Your task to perform on an android device: star an email in the gmail app Image 0: 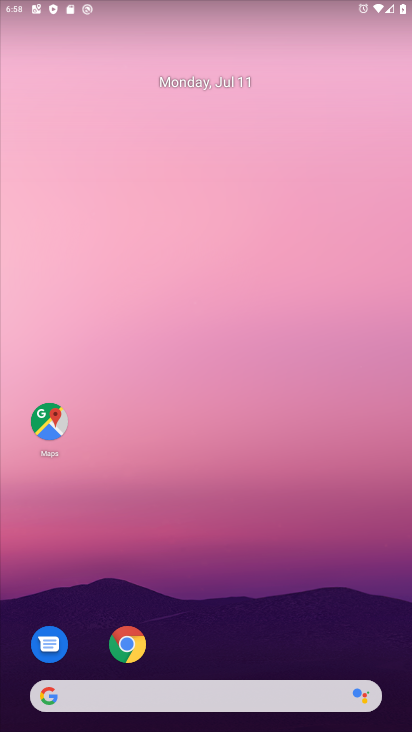
Step 0: drag from (225, 651) to (198, 20)
Your task to perform on an android device: star an email in the gmail app Image 1: 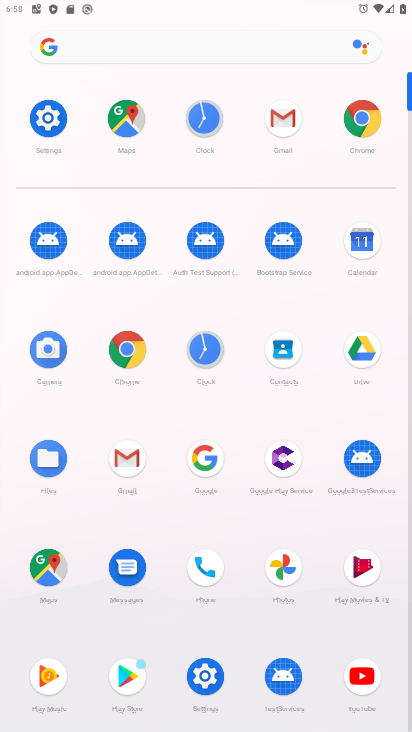
Step 1: click (113, 460)
Your task to perform on an android device: star an email in the gmail app Image 2: 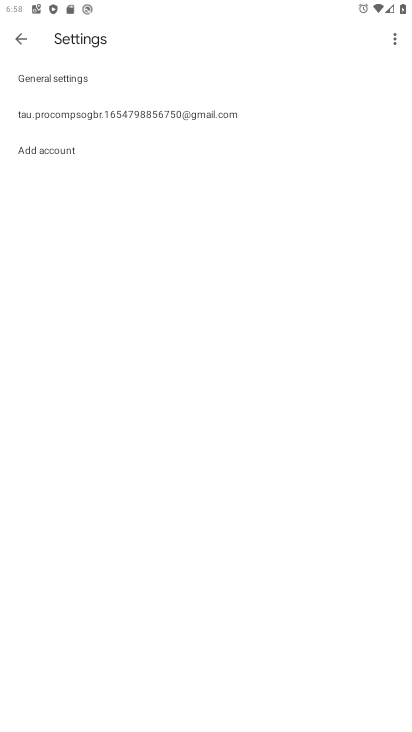
Step 2: press back button
Your task to perform on an android device: star an email in the gmail app Image 3: 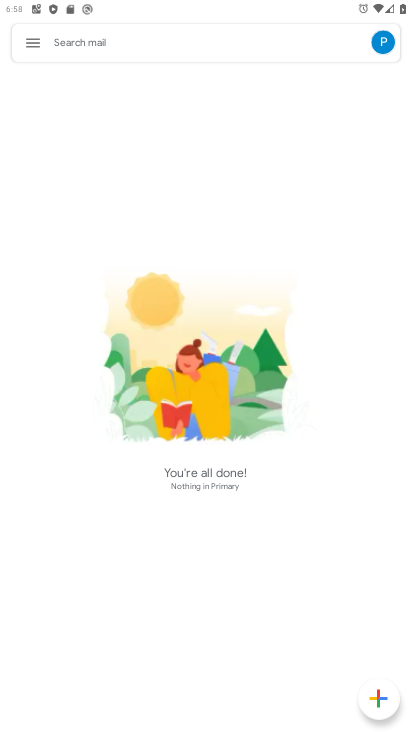
Step 3: click (28, 41)
Your task to perform on an android device: star an email in the gmail app Image 4: 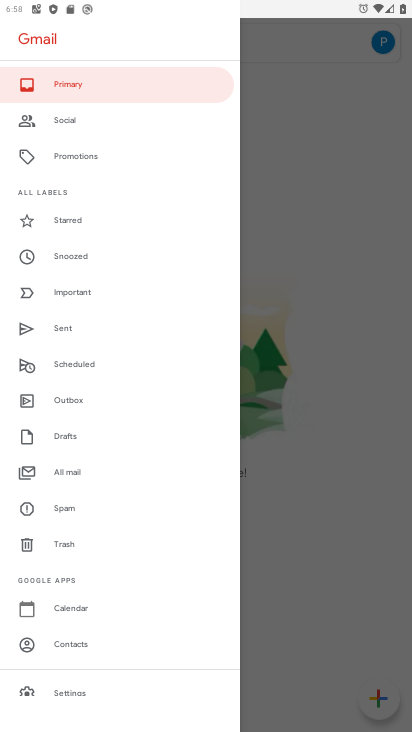
Step 4: click (86, 218)
Your task to perform on an android device: star an email in the gmail app Image 5: 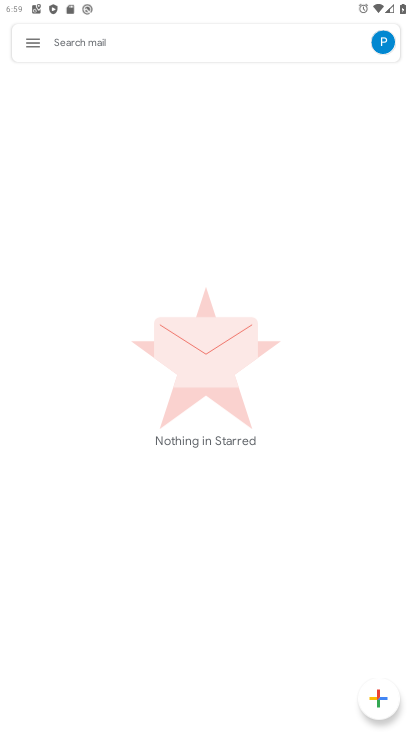
Step 5: task complete